Your task to perform on an android device: find snoozed emails in the gmail app Image 0: 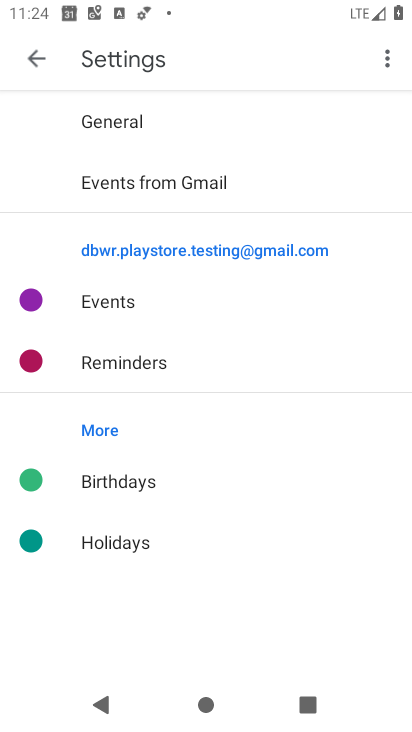
Step 0: press home button
Your task to perform on an android device: find snoozed emails in the gmail app Image 1: 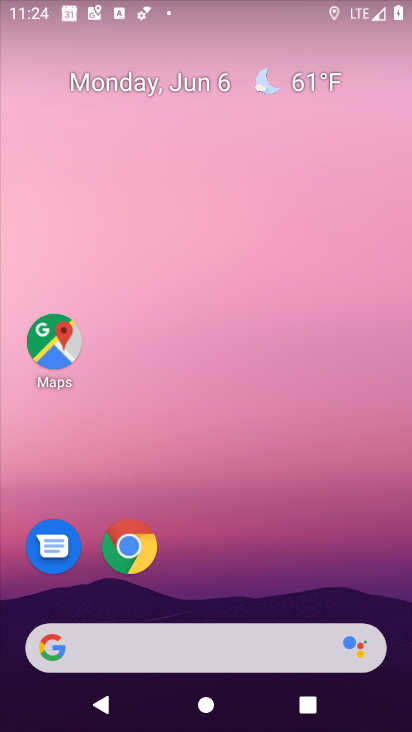
Step 1: drag from (398, 614) to (313, 34)
Your task to perform on an android device: find snoozed emails in the gmail app Image 2: 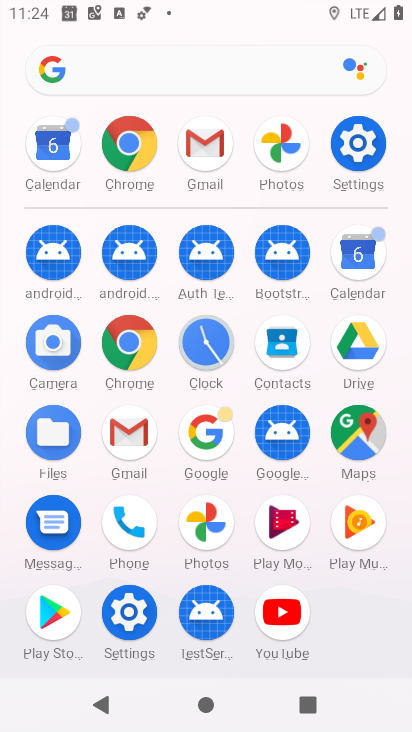
Step 2: click (129, 432)
Your task to perform on an android device: find snoozed emails in the gmail app Image 3: 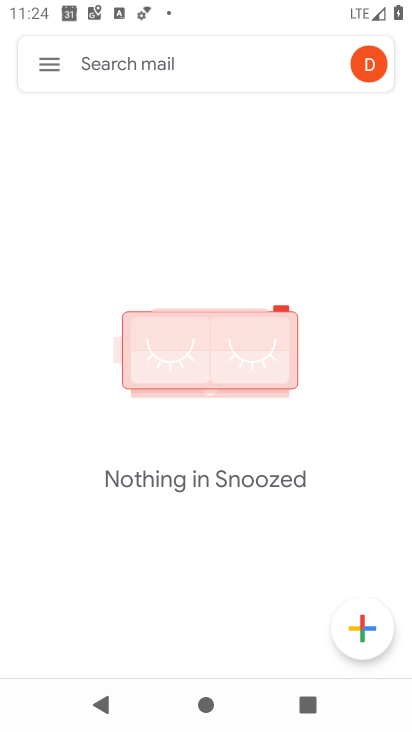
Step 3: click (52, 67)
Your task to perform on an android device: find snoozed emails in the gmail app Image 4: 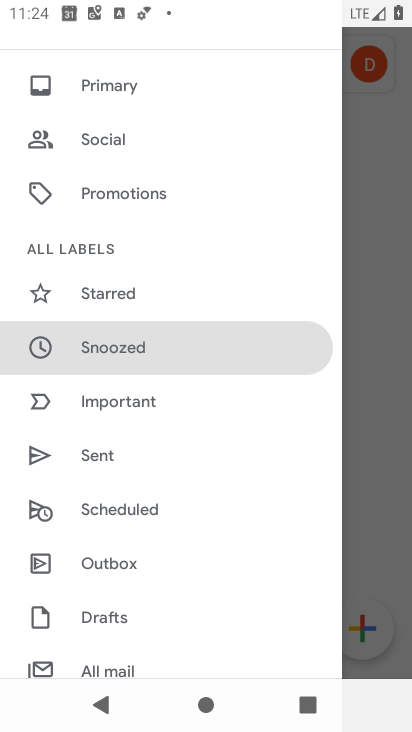
Step 4: click (137, 354)
Your task to perform on an android device: find snoozed emails in the gmail app Image 5: 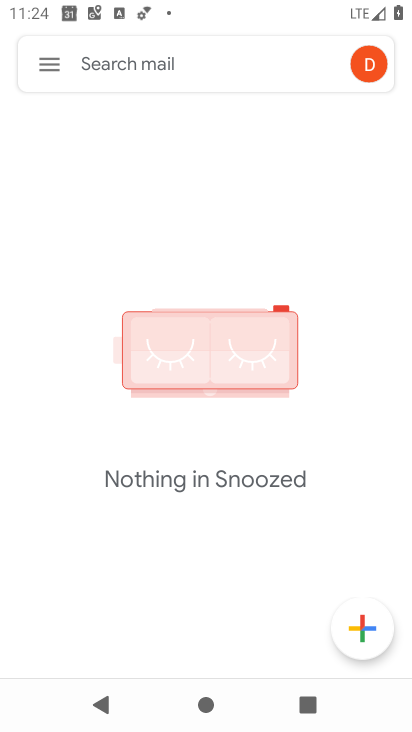
Step 5: task complete